Your task to perform on an android device: What is the speed of a tiger? Image 0: 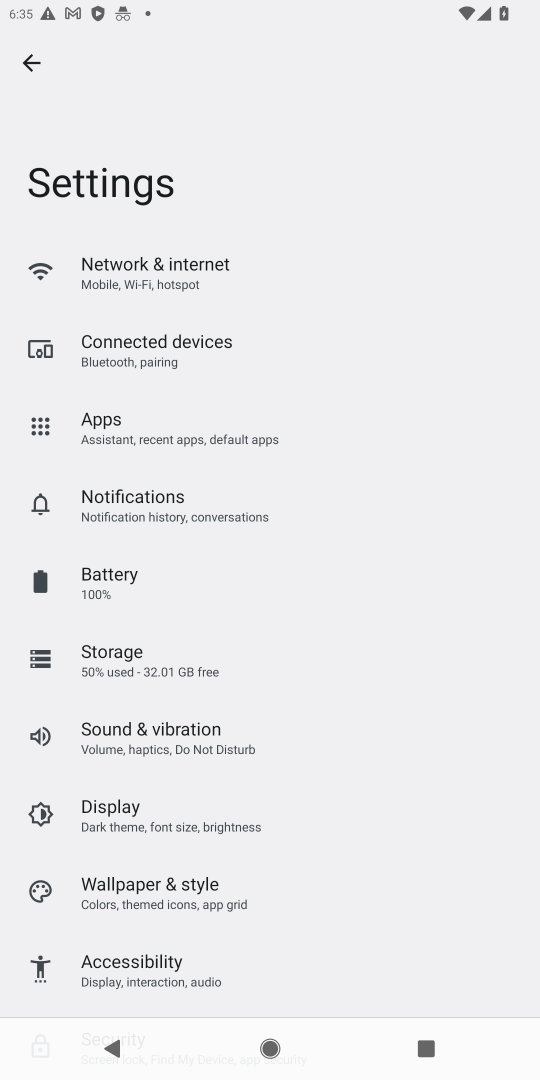
Step 0: press home button
Your task to perform on an android device: What is the speed of a tiger? Image 1: 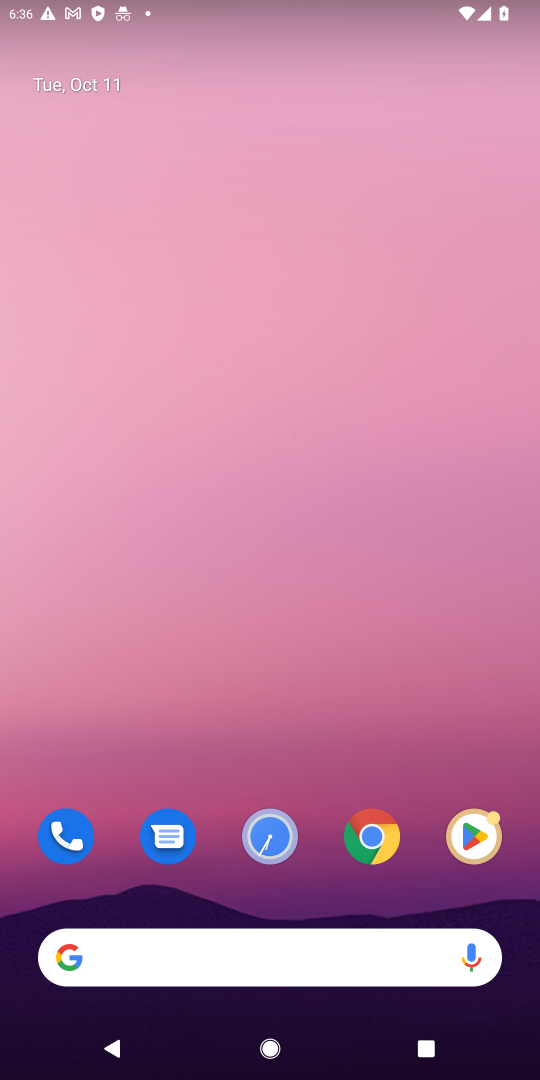
Step 1: click (373, 834)
Your task to perform on an android device: What is the speed of a tiger? Image 2: 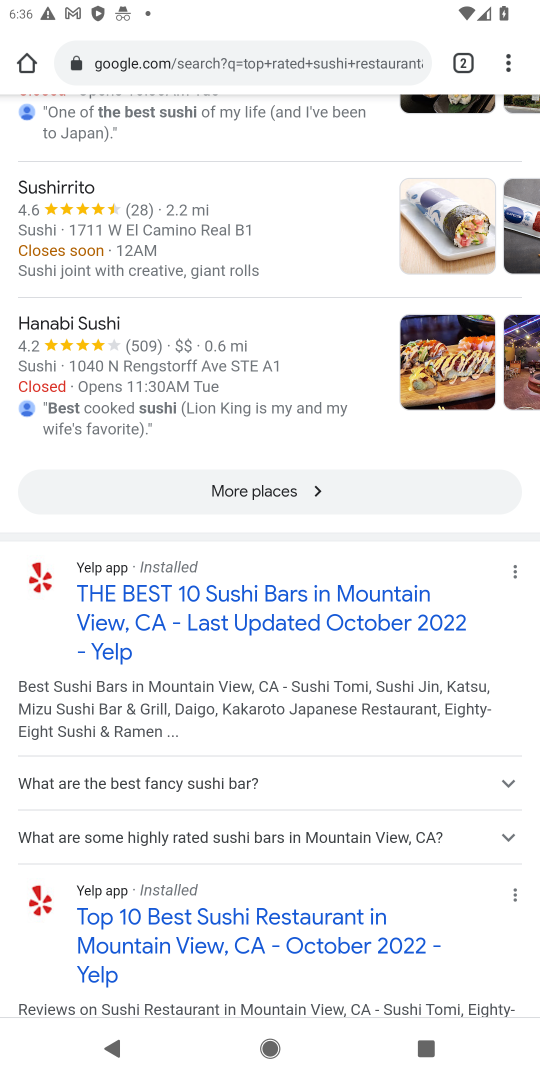
Step 2: click (196, 44)
Your task to perform on an android device: What is the speed of a tiger? Image 3: 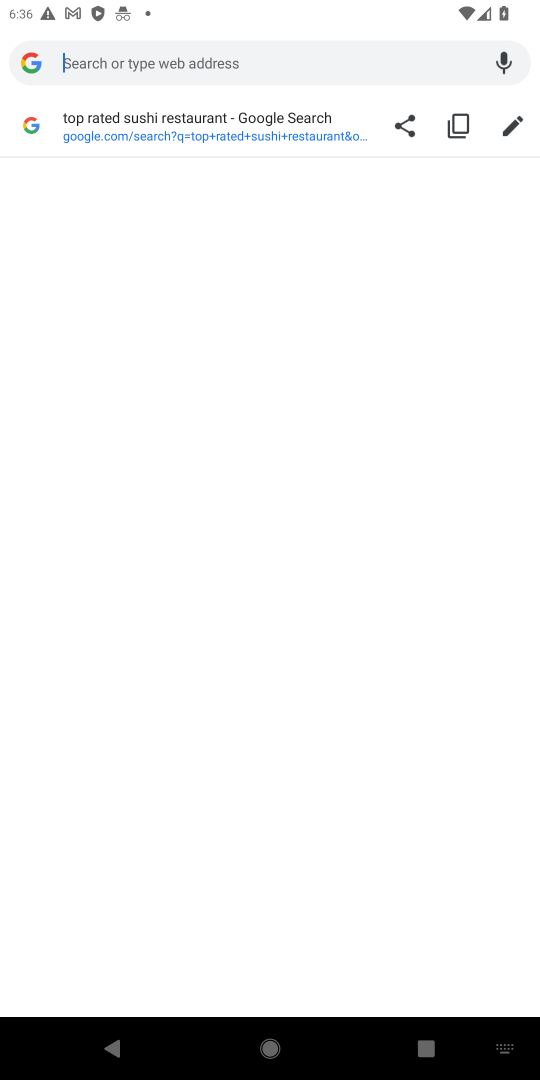
Step 3: type "speed of a tiger"
Your task to perform on an android device: What is the speed of a tiger? Image 4: 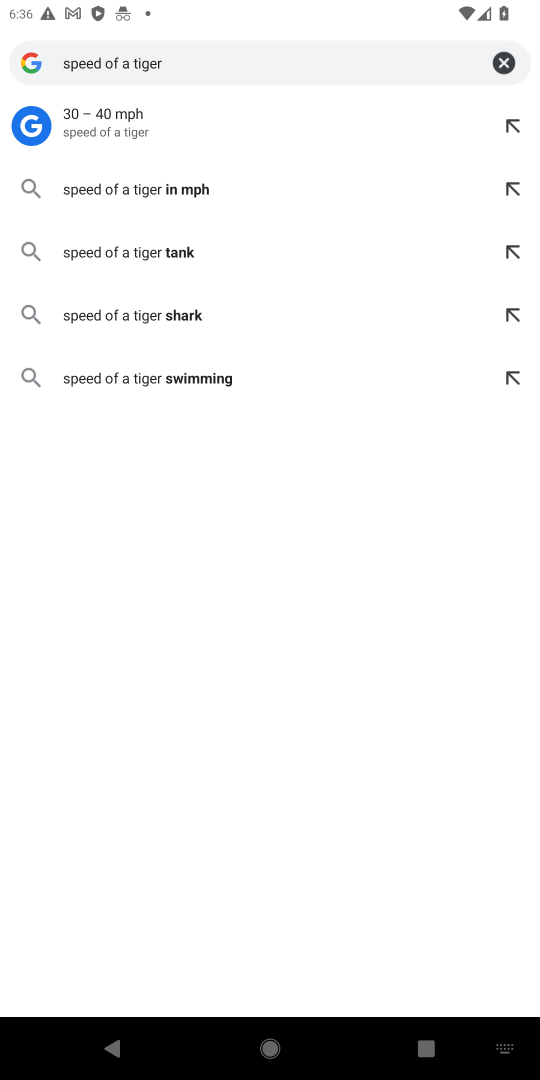
Step 4: click (171, 126)
Your task to perform on an android device: What is the speed of a tiger? Image 5: 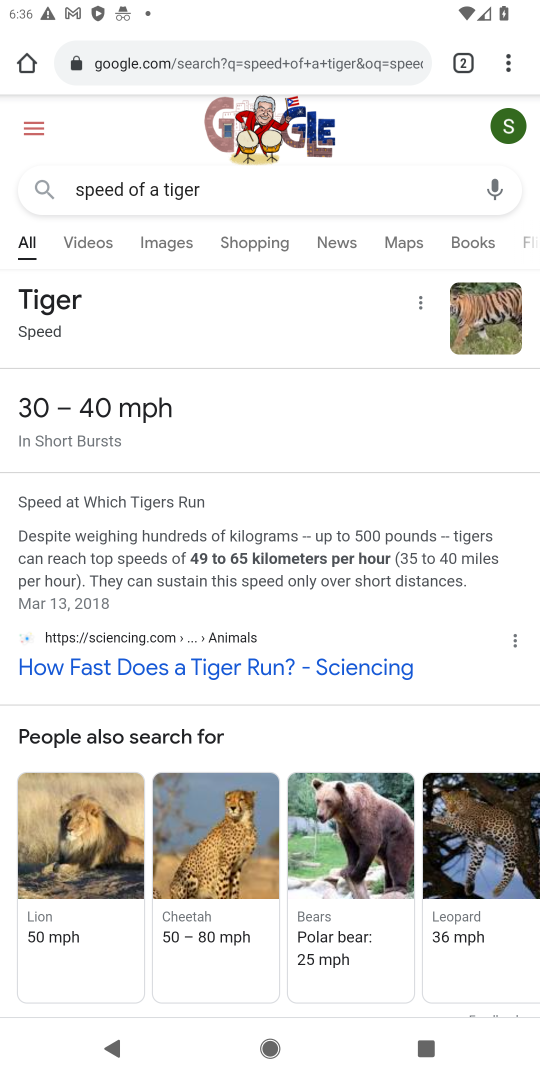
Step 5: task complete